Your task to perform on an android device: turn on bluetooth scan Image 0: 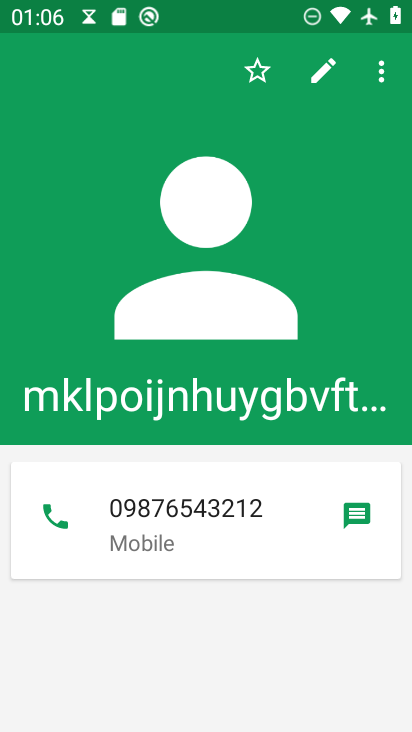
Step 0: press home button
Your task to perform on an android device: turn on bluetooth scan Image 1: 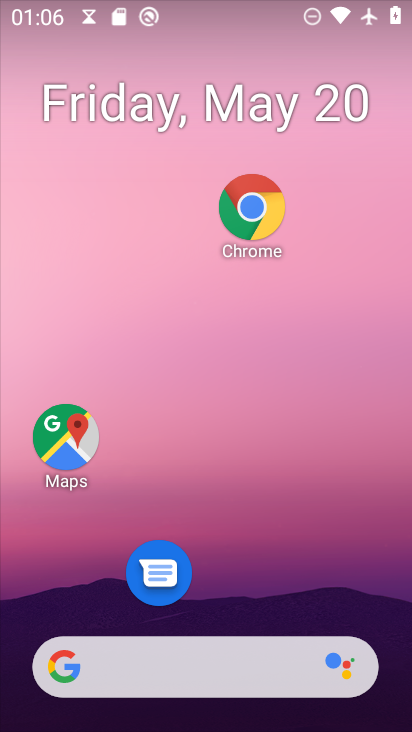
Step 1: drag from (260, 519) to (232, 1)
Your task to perform on an android device: turn on bluetooth scan Image 2: 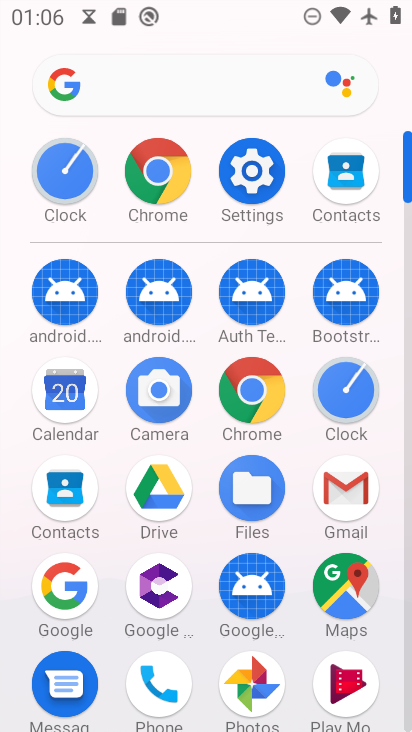
Step 2: click (260, 161)
Your task to perform on an android device: turn on bluetooth scan Image 3: 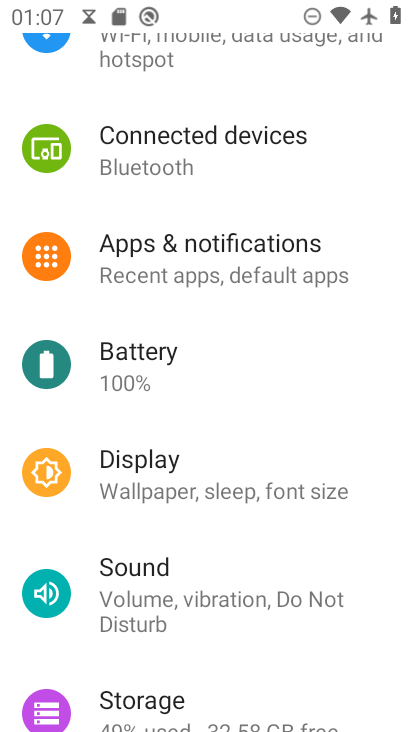
Step 3: drag from (210, 575) to (204, 345)
Your task to perform on an android device: turn on bluetooth scan Image 4: 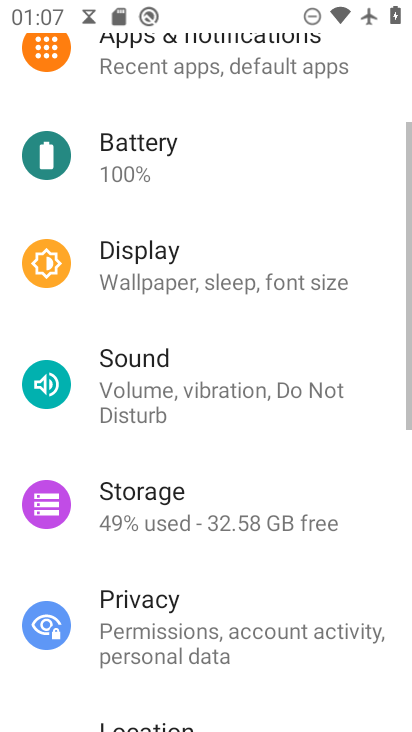
Step 4: drag from (172, 599) to (195, 307)
Your task to perform on an android device: turn on bluetooth scan Image 5: 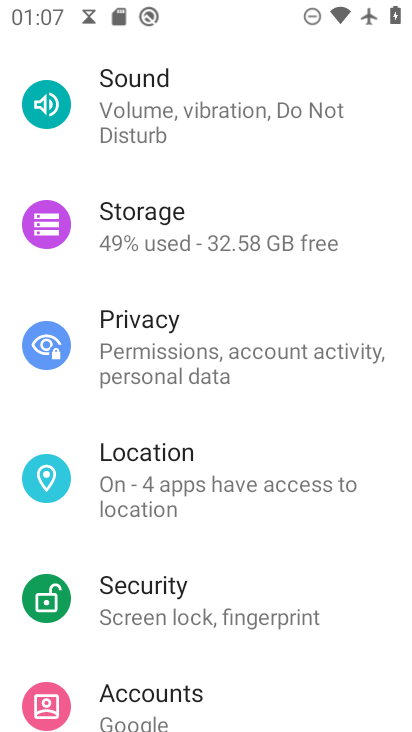
Step 5: click (157, 479)
Your task to perform on an android device: turn on bluetooth scan Image 6: 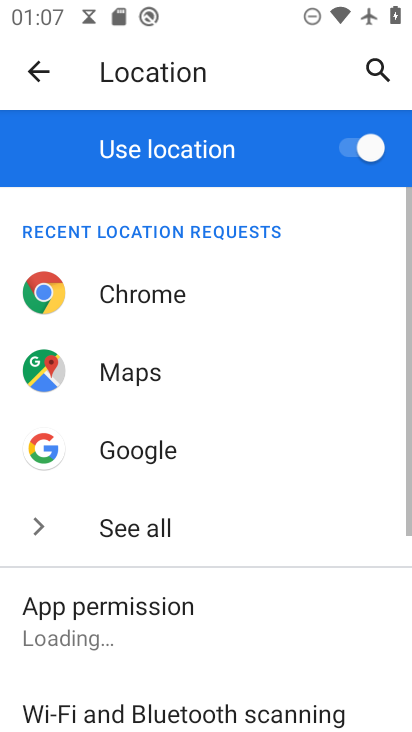
Step 6: drag from (119, 639) to (136, 429)
Your task to perform on an android device: turn on bluetooth scan Image 7: 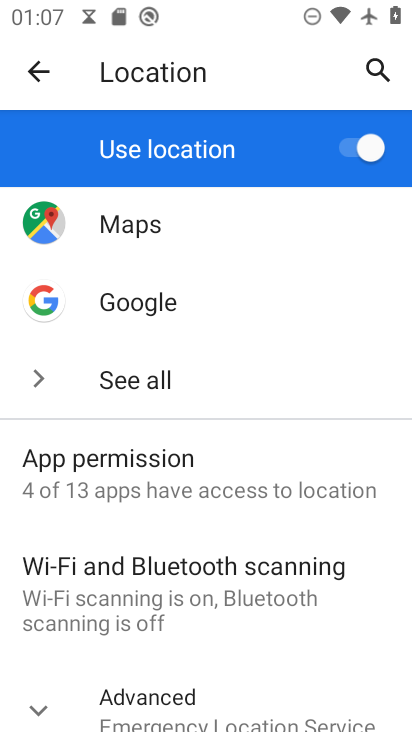
Step 7: click (86, 610)
Your task to perform on an android device: turn on bluetooth scan Image 8: 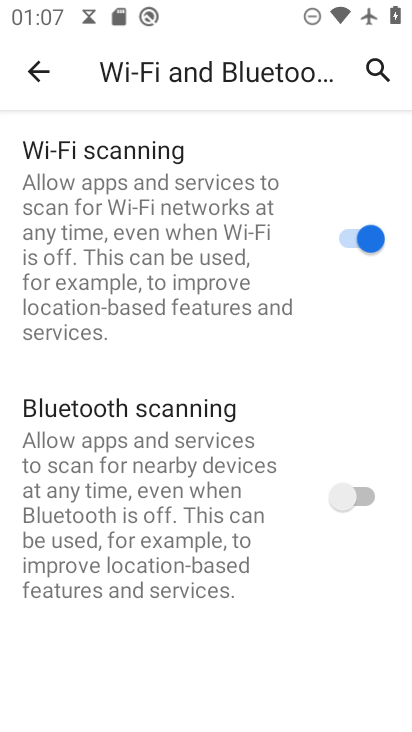
Step 8: click (349, 485)
Your task to perform on an android device: turn on bluetooth scan Image 9: 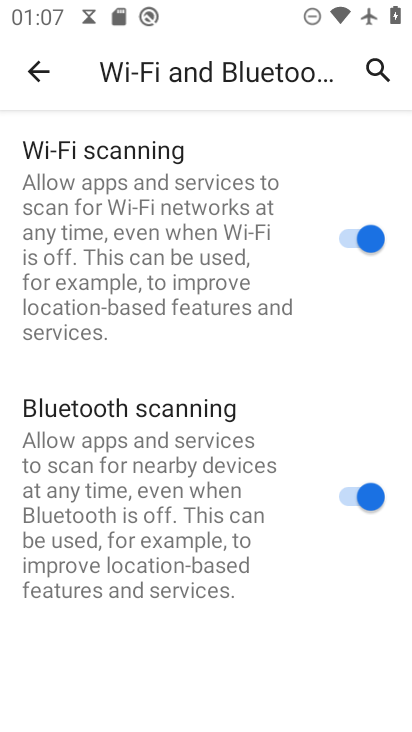
Step 9: task complete